Your task to perform on an android device: Open internet settings Image 0: 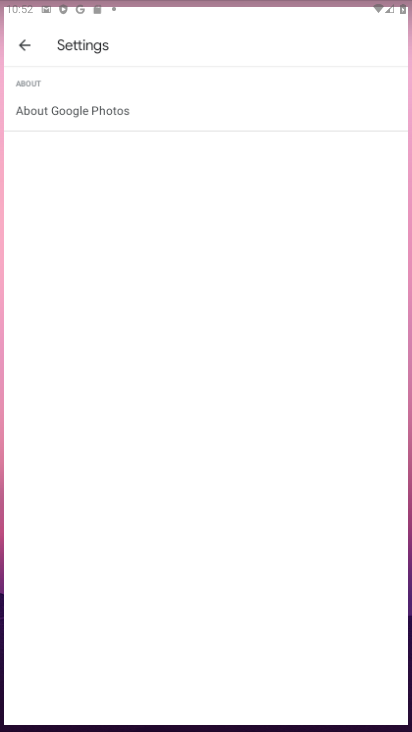
Step 0: drag from (222, 723) to (219, 70)
Your task to perform on an android device: Open internet settings Image 1: 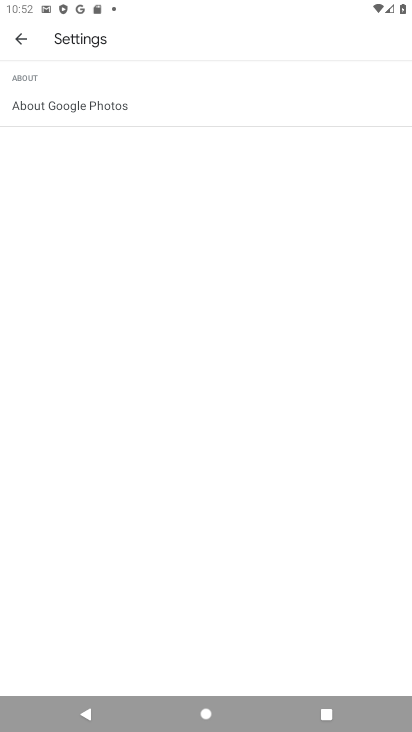
Step 1: press home button
Your task to perform on an android device: Open internet settings Image 2: 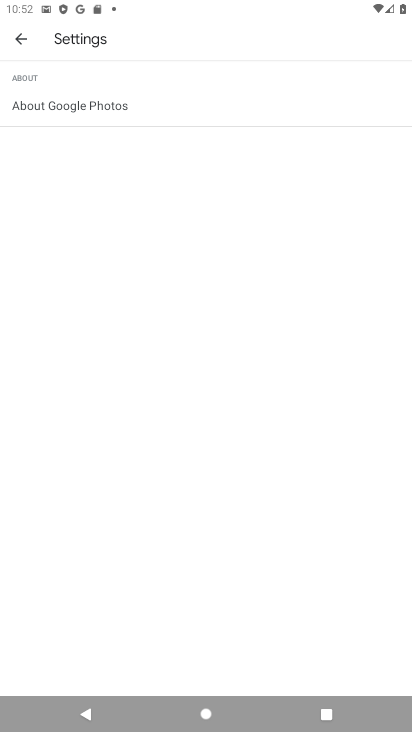
Step 2: press home button
Your task to perform on an android device: Open internet settings Image 3: 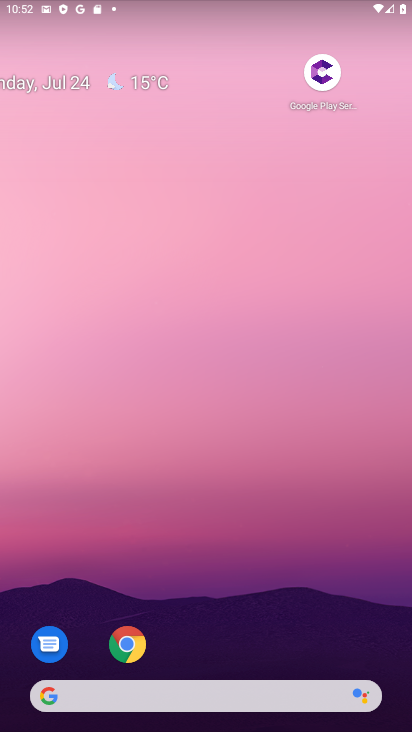
Step 3: drag from (246, 726) to (240, 56)
Your task to perform on an android device: Open internet settings Image 4: 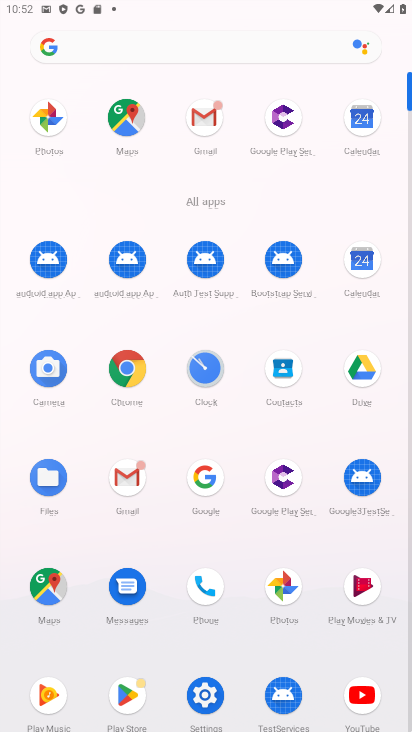
Step 4: click (199, 690)
Your task to perform on an android device: Open internet settings Image 5: 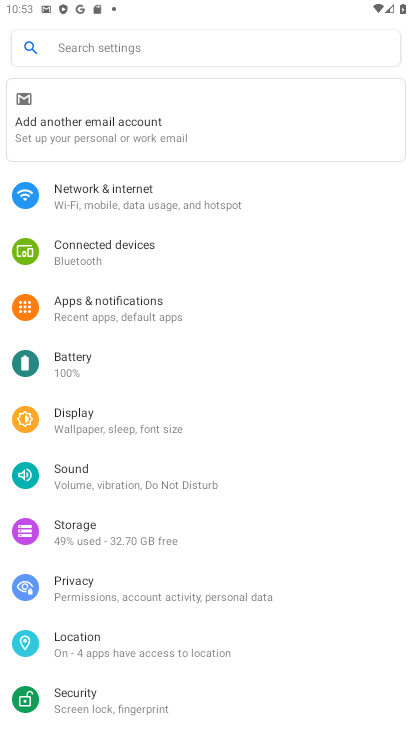
Step 5: click (106, 199)
Your task to perform on an android device: Open internet settings Image 6: 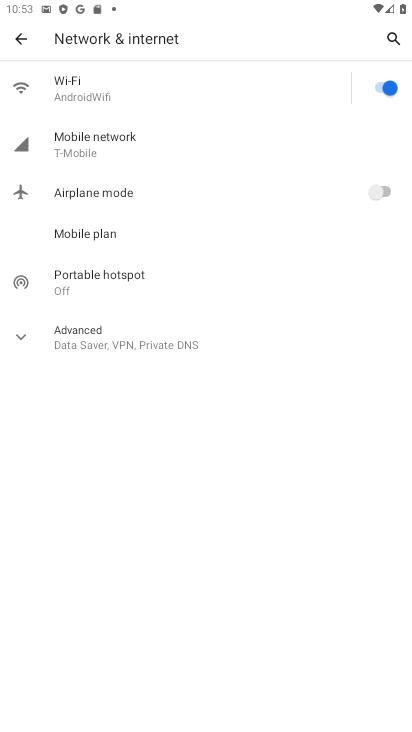
Step 6: task complete